Your task to perform on an android device: set an alarm Image 0: 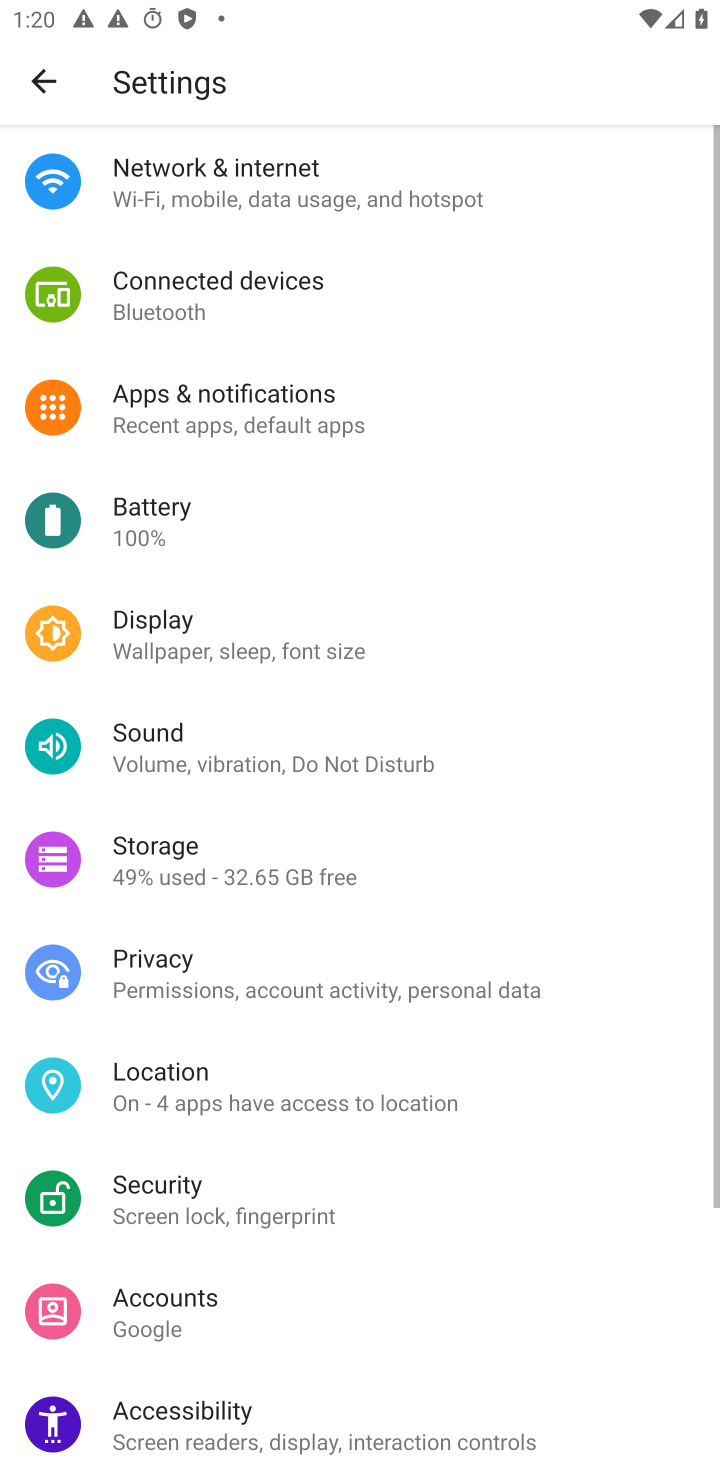
Step 0: press home button
Your task to perform on an android device: set an alarm Image 1: 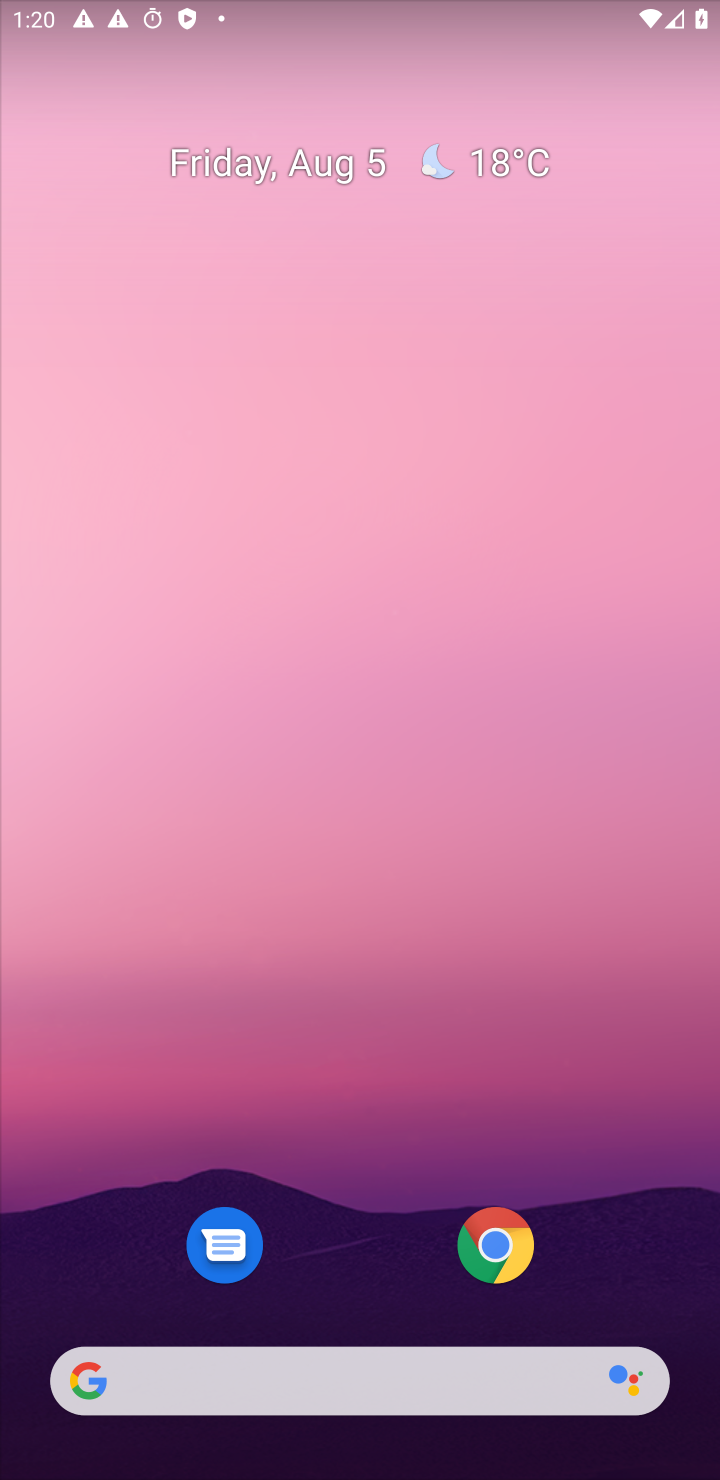
Step 1: drag from (378, 1282) to (254, 203)
Your task to perform on an android device: set an alarm Image 2: 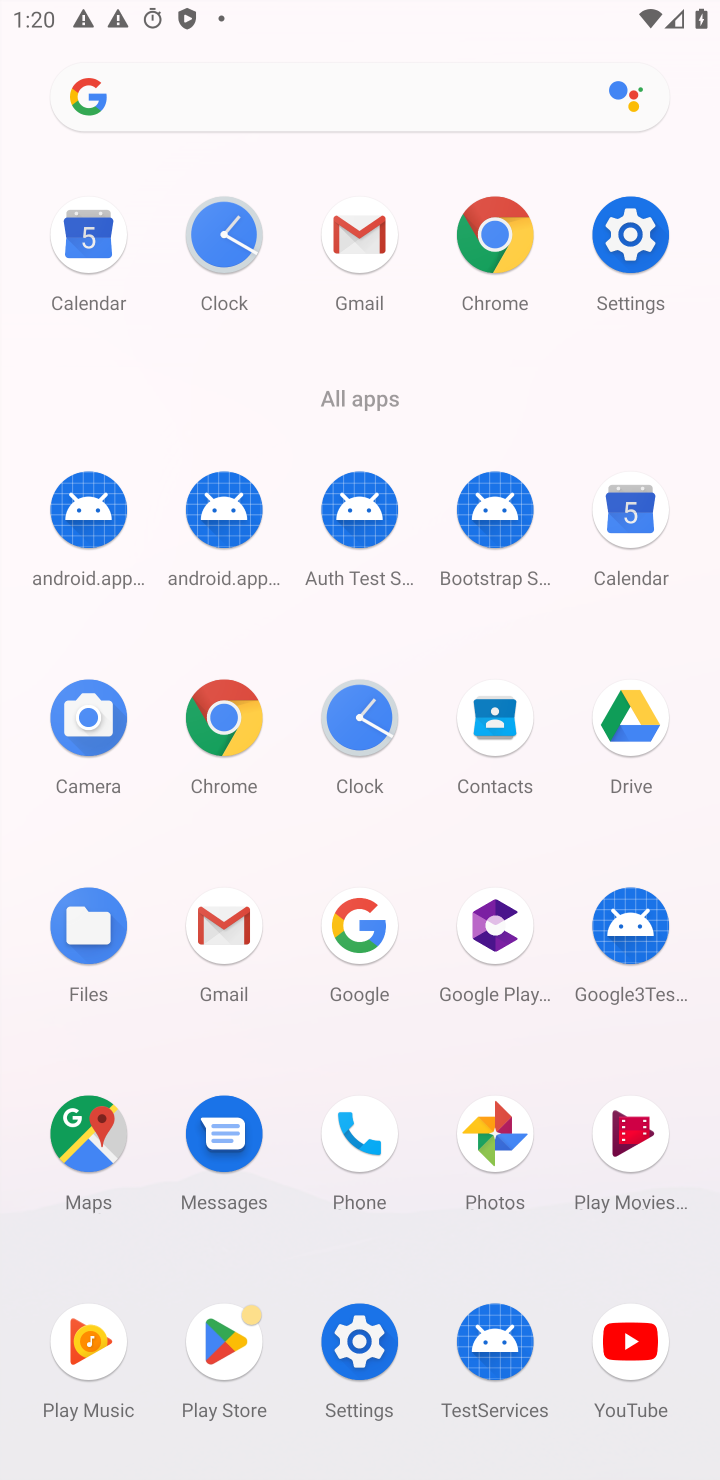
Step 2: click (227, 251)
Your task to perform on an android device: set an alarm Image 3: 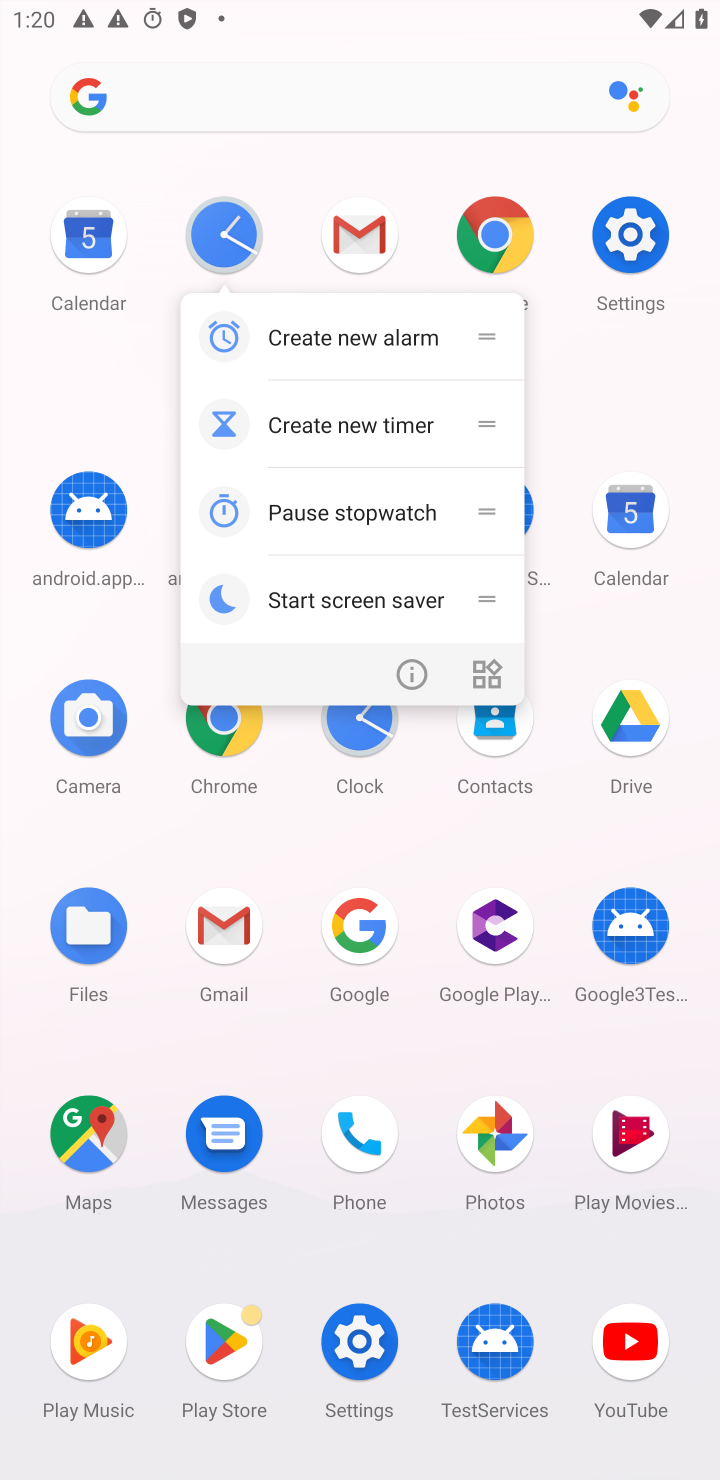
Step 3: click (227, 251)
Your task to perform on an android device: set an alarm Image 4: 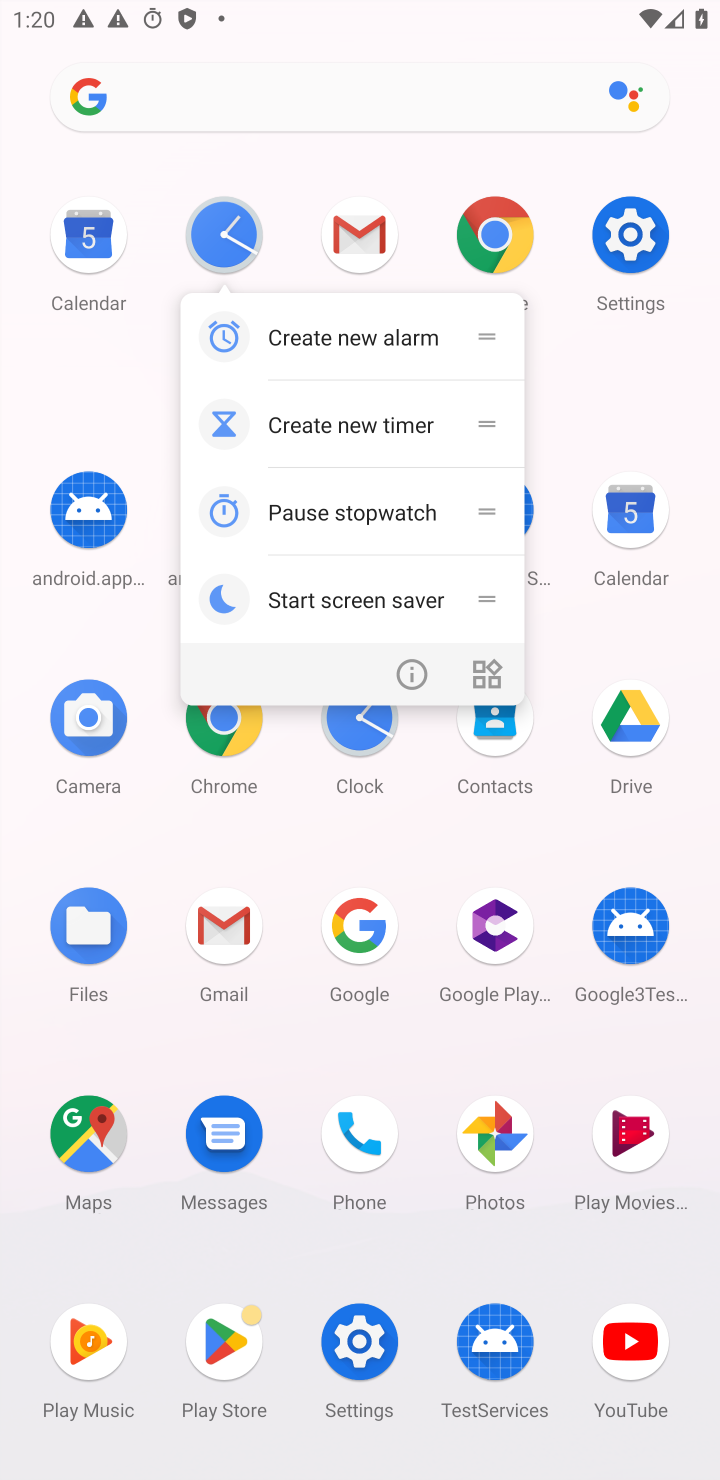
Step 4: click (227, 251)
Your task to perform on an android device: set an alarm Image 5: 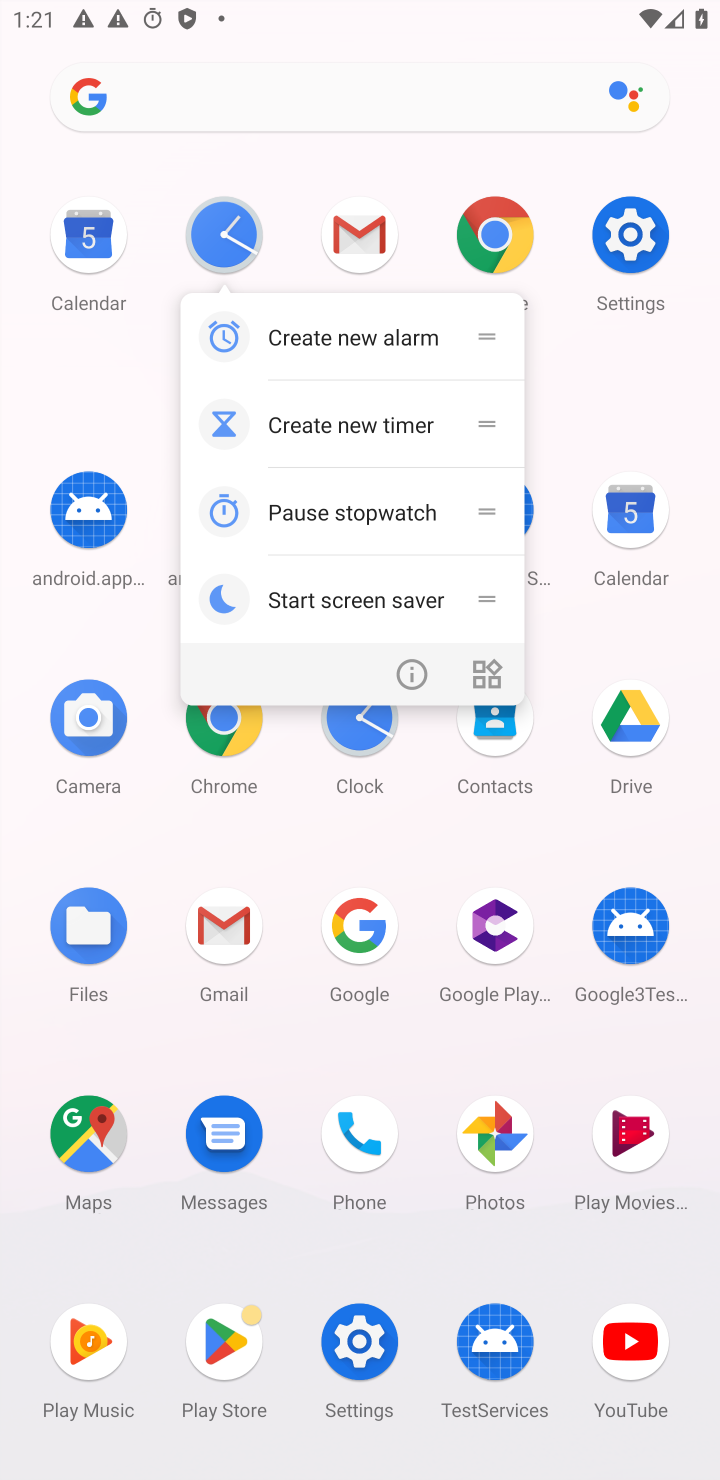
Step 5: click (225, 229)
Your task to perform on an android device: set an alarm Image 6: 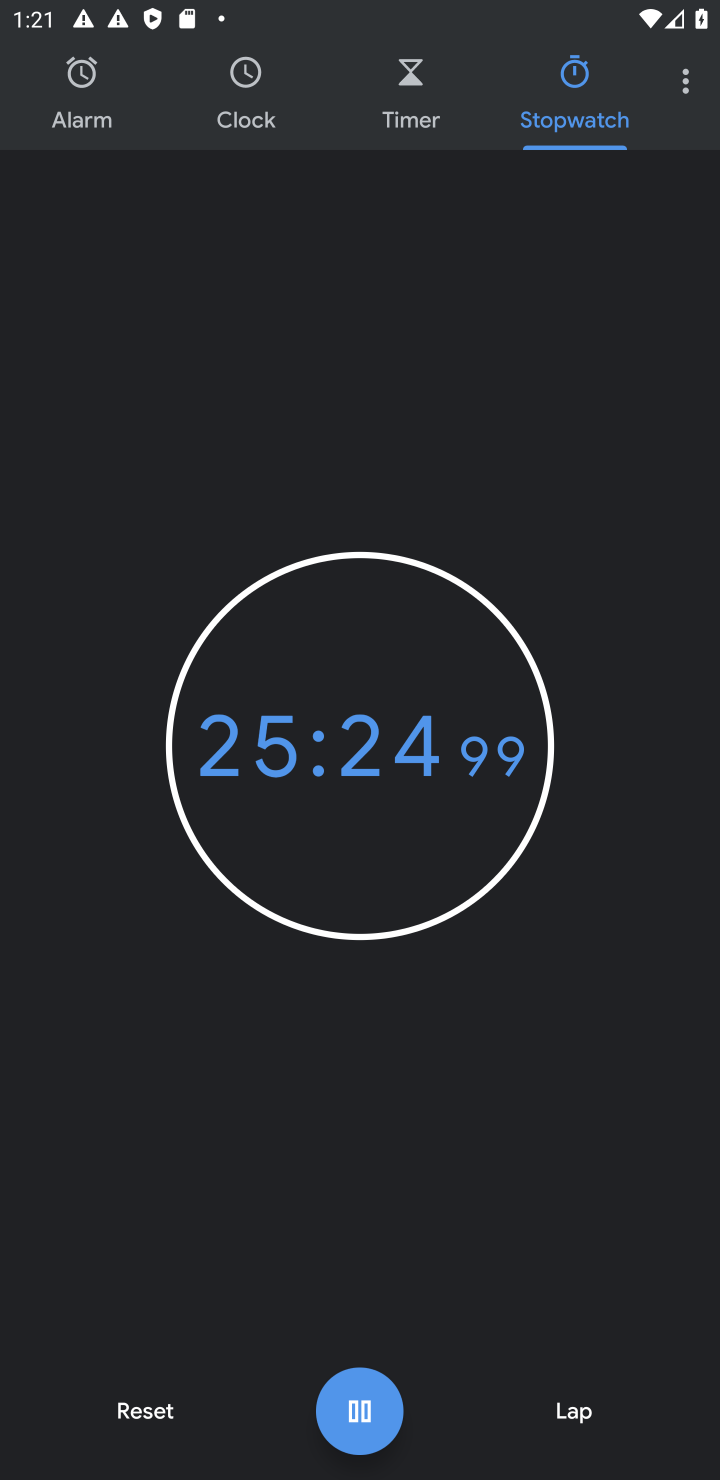
Step 6: click (81, 73)
Your task to perform on an android device: set an alarm Image 7: 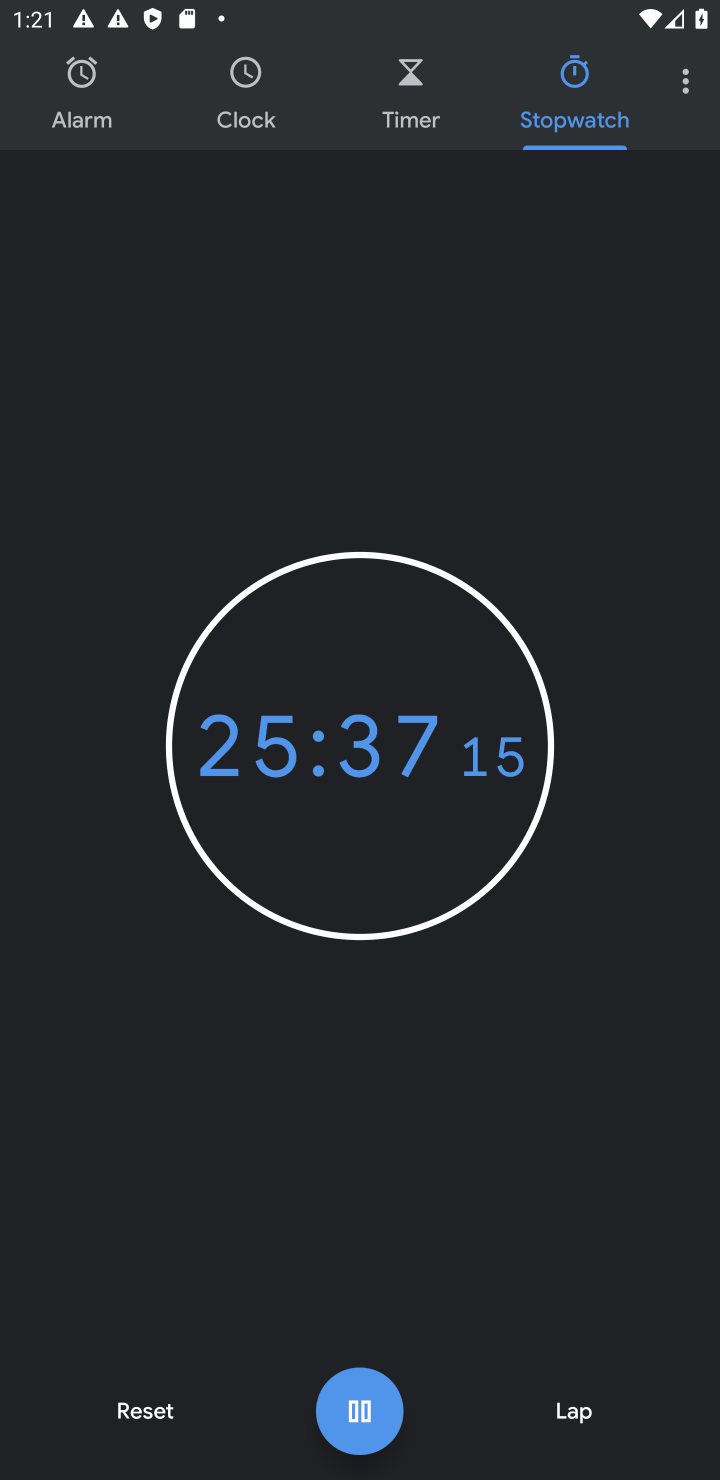
Step 7: click (94, 96)
Your task to perform on an android device: set an alarm Image 8: 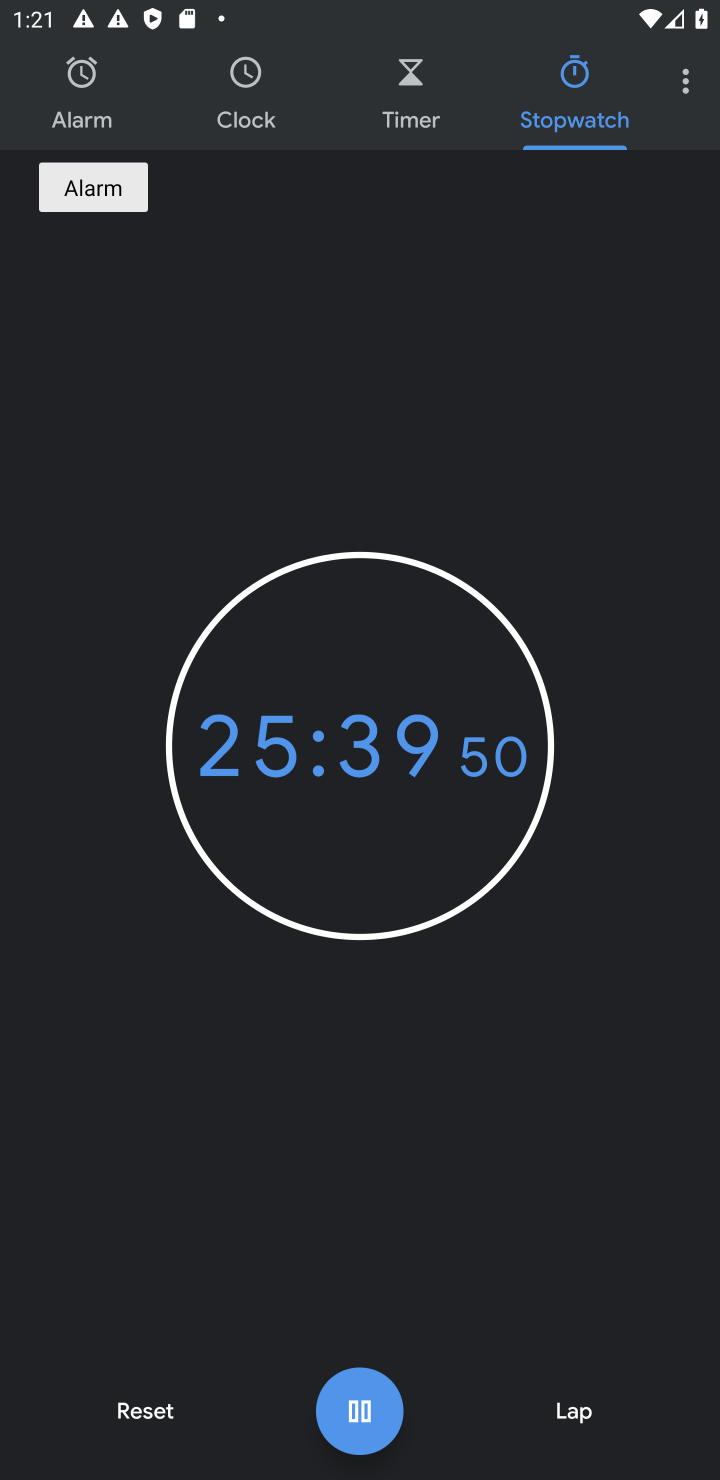
Step 8: click (86, 104)
Your task to perform on an android device: set an alarm Image 9: 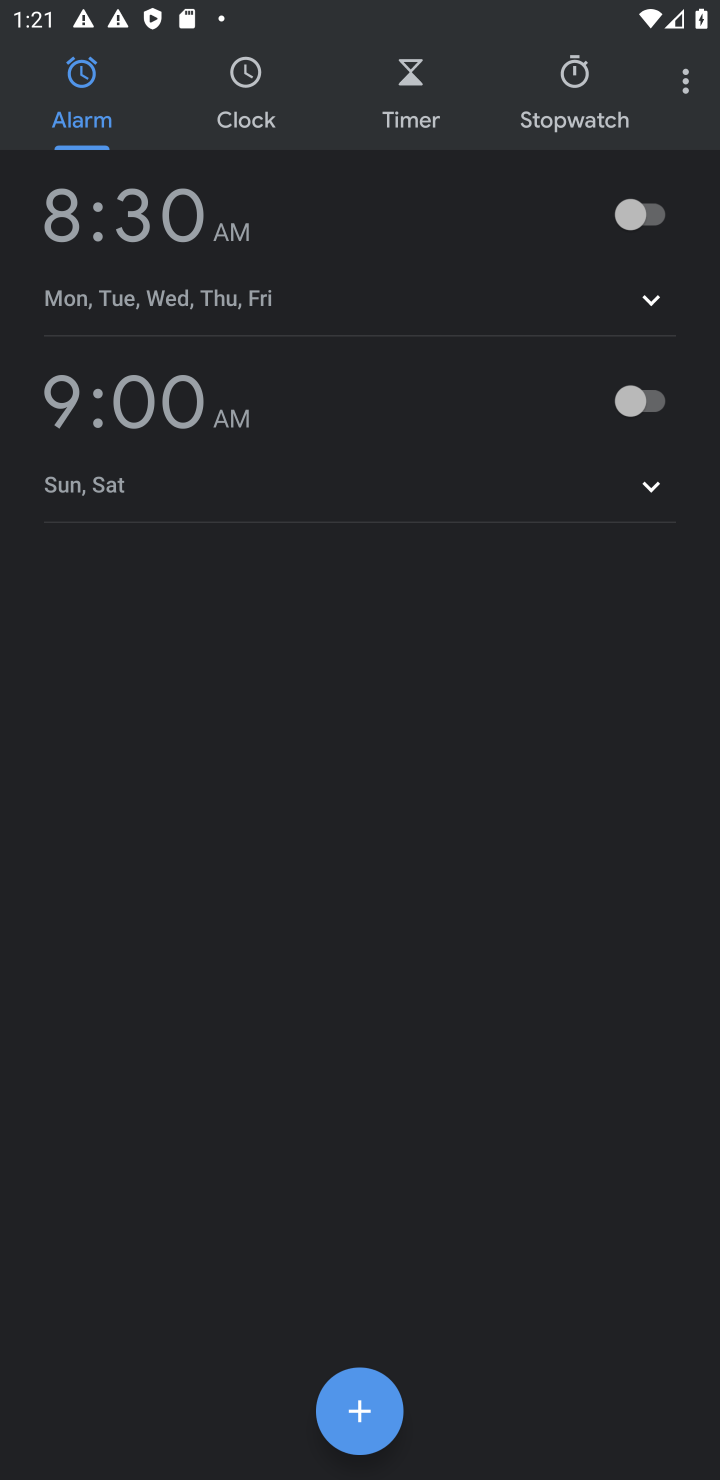
Step 9: click (632, 211)
Your task to perform on an android device: set an alarm Image 10: 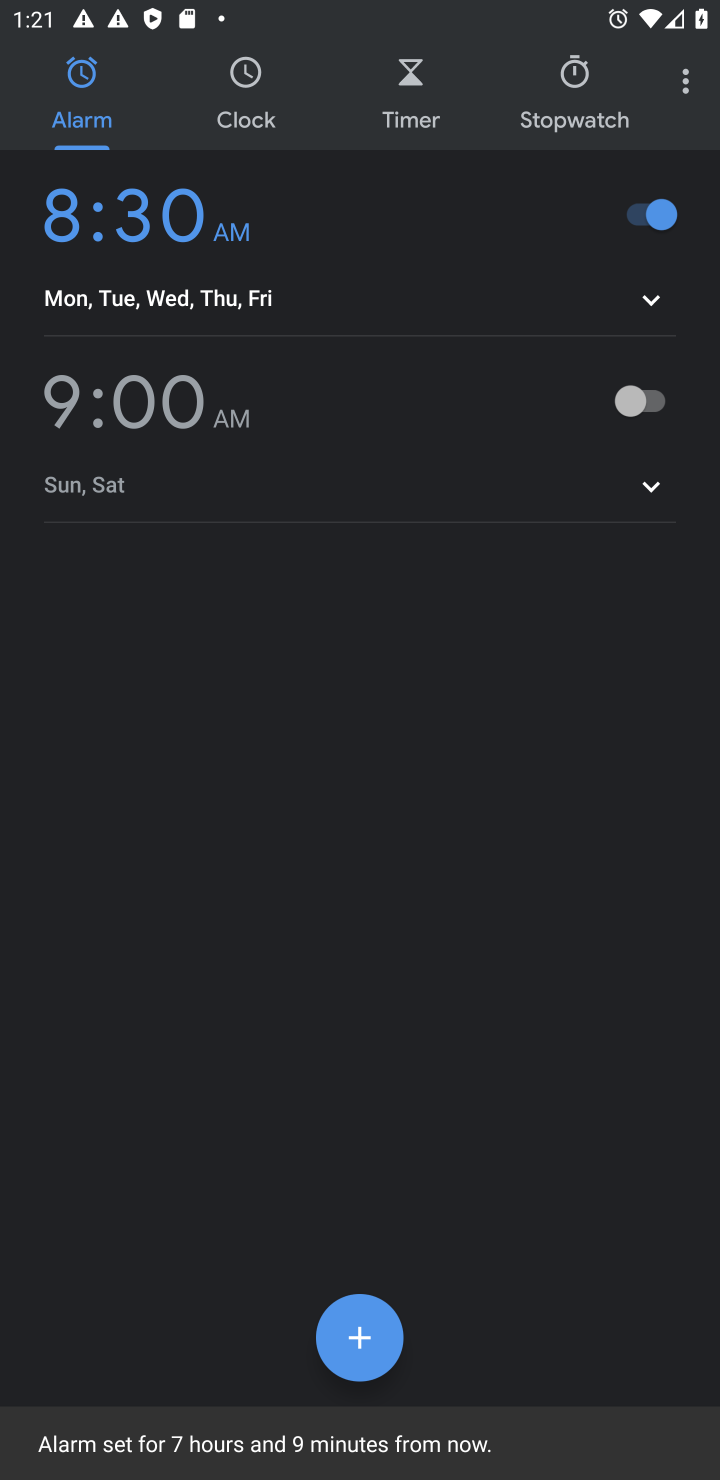
Step 10: task complete